Your task to perform on an android device: Go to Android settings Image 0: 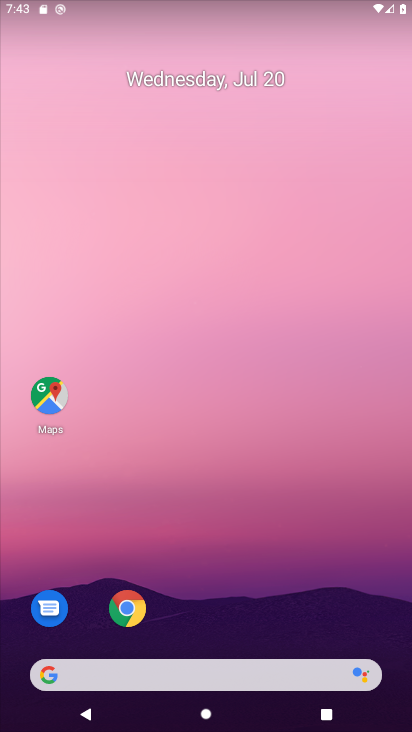
Step 0: drag from (259, 642) to (280, 247)
Your task to perform on an android device: Go to Android settings Image 1: 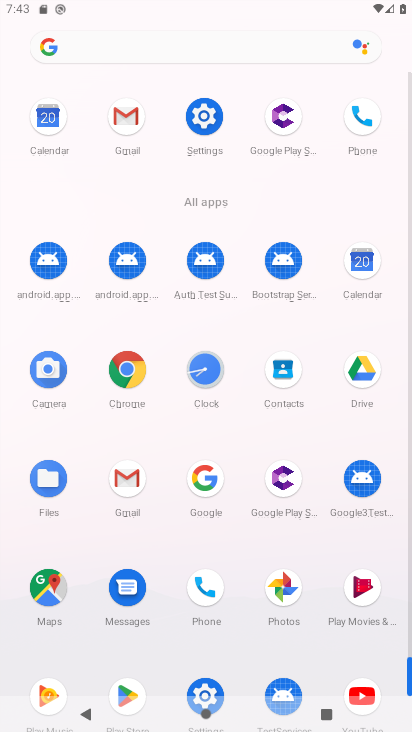
Step 1: click (211, 110)
Your task to perform on an android device: Go to Android settings Image 2: 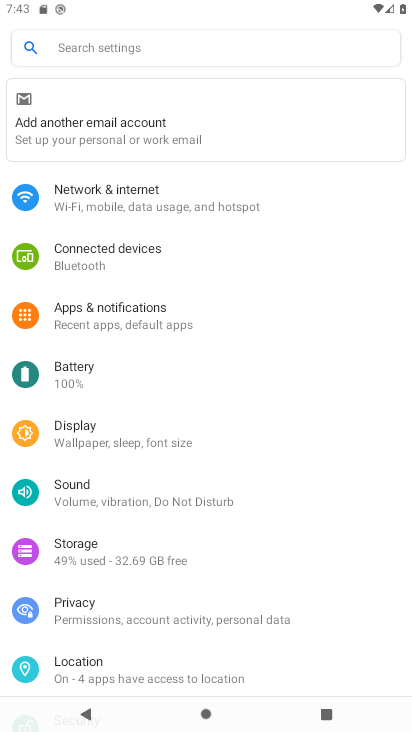
Step 2: task complete